Your task to perform on an android device: turn off priority inbox in the gmail app Image 0: 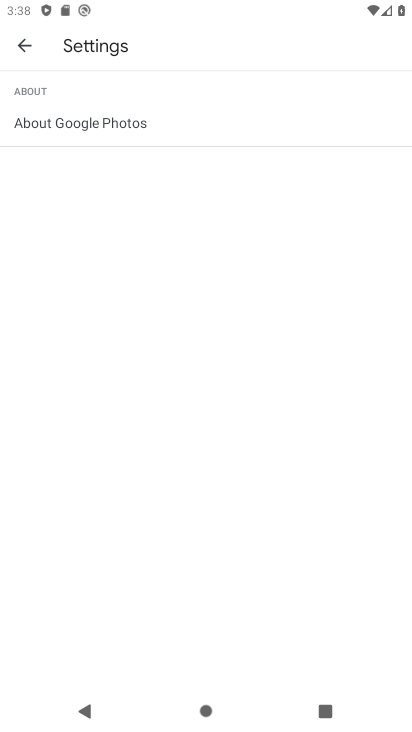
Step 0: press home button
Your task to perform on an android device: turn off priority inbox in the gmail app Image 1: 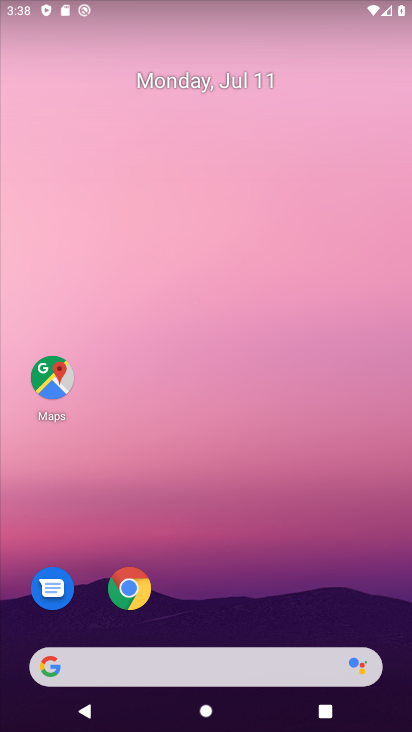
Step 1: drag from (345, 601) to (384, 131)
Your task to perform on an android device: turn off priority inbox in the gmail app Image 2: 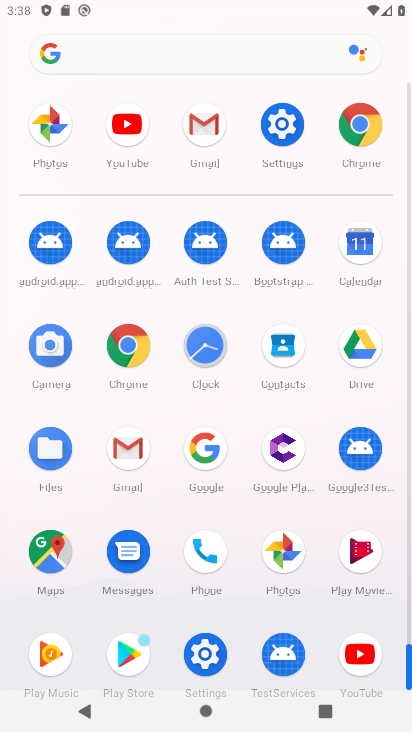
Step 2: click (132, 445)
Your task to perform on an android device: turn off priority inbox in the gmail app Image 3: 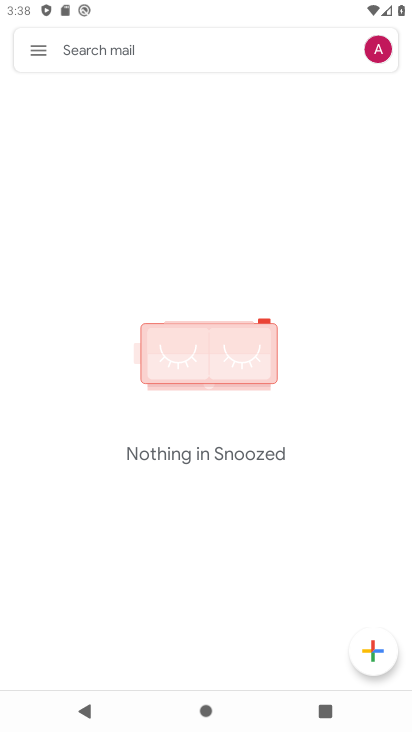
Step 3: click (36, 52)
Your task to perform on an android device: turn off priority inbox in the gmail app Image 4: 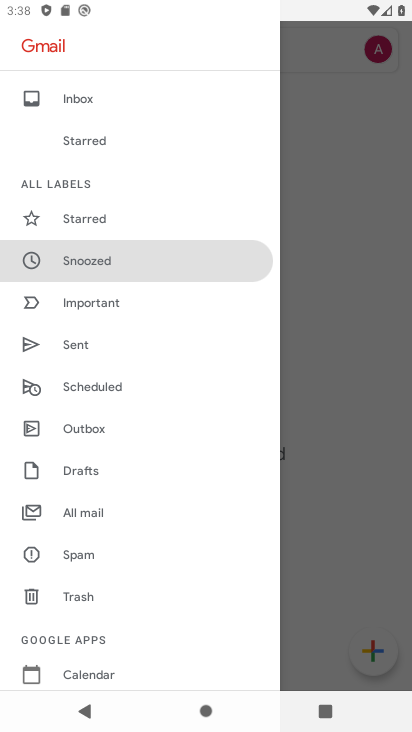
Step 4: drag from (228, 386) to (229, 277)
Your task to perform on an android device: turn off priority inbox in the gmail app Image 5: 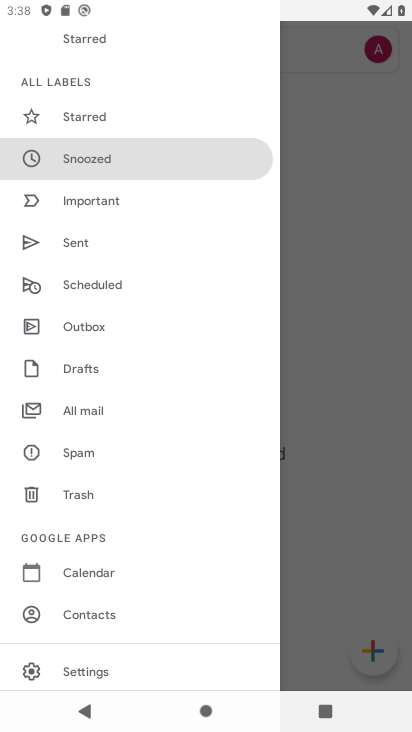
Step 5: drag from (230, 513) to (234, 392)
Your task to perform on an android device: turn off priority inbox in the gmail app Image 6: 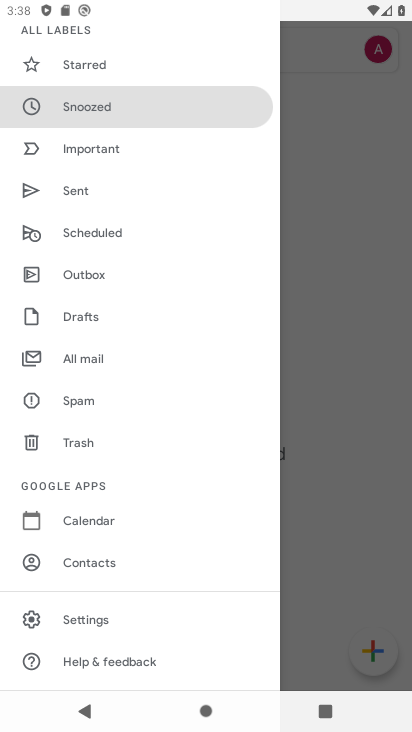
Step 6: click (160, 628)
Your task to perform on an android device: turn off priority inbox in the gmail app Image 7: 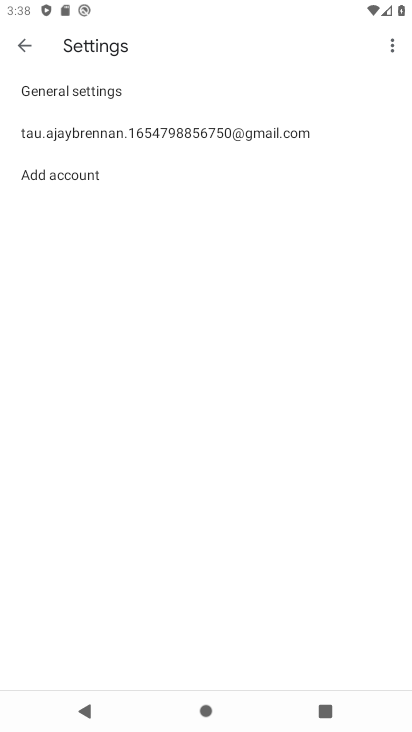
Step 7: click (142, 141)
Your task to perform on an android device: turn off priority inbox in the gmail app Image 8: 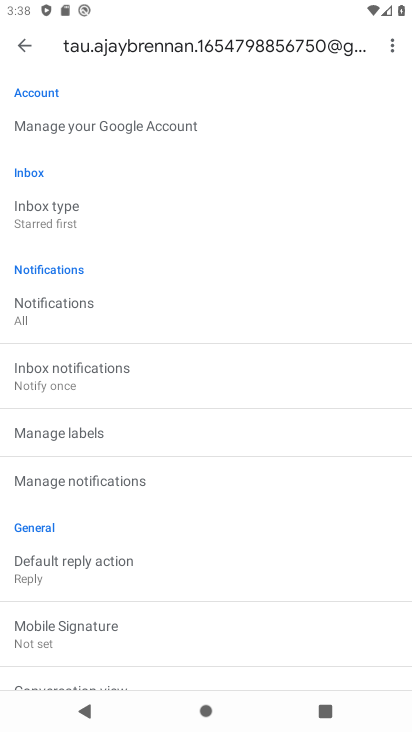
Step 8: drag from (248, 395) to (257, 340)
Your task to perform on an android device: turn off priority inbox in the gmail app Image 9: 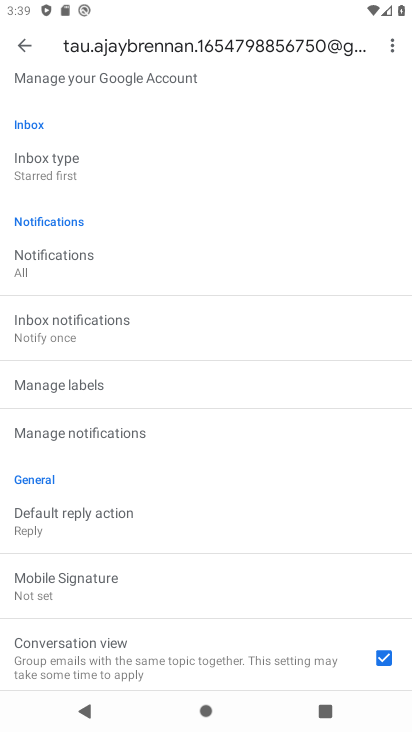
Step 9: drag from (280, 410) to (284, 308)
Your task to perform on an android device: turn off priority inbox in the gmail app Image 10: 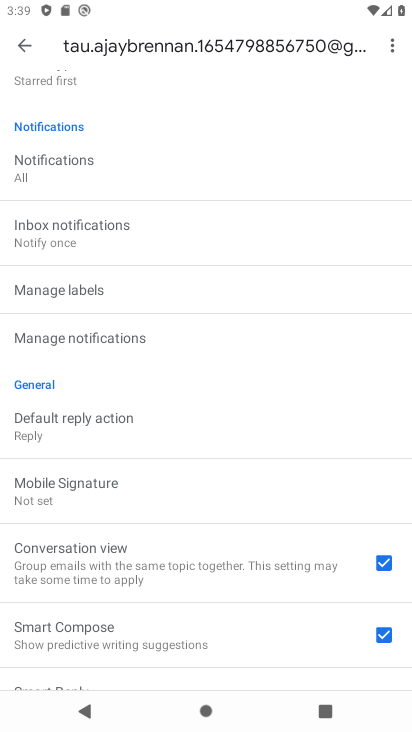
Step 10: drag from (275, 410) to (287, 317)
Your task to perform on an android device: turn off priority inbox in the gmail app Image 11: 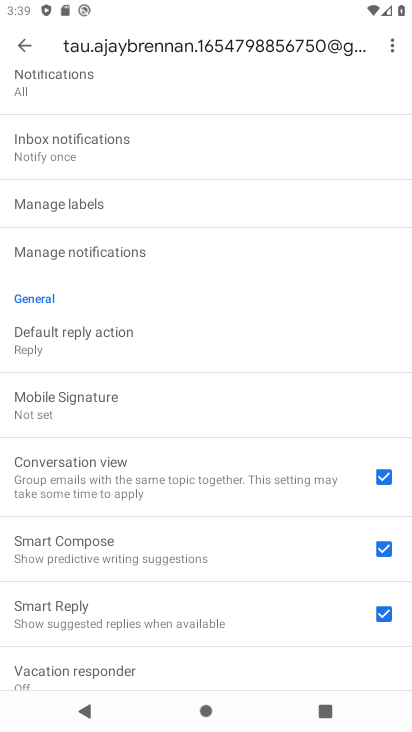
Step 11: drag from (281, 452) to (279, 338)
Your task to perform on an android device: turn off priority inbox in the gmail app Image 12: 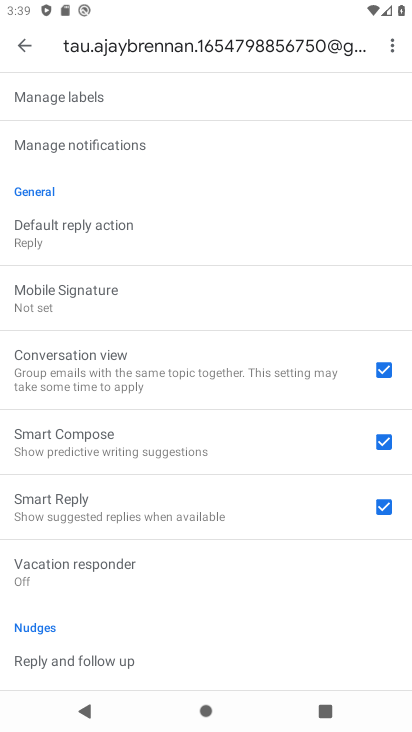
Step 12: drag from (298, 485) to (298, 343)
Your task to perform on an android device: turn off priority inbox in the gmail app Image 13: 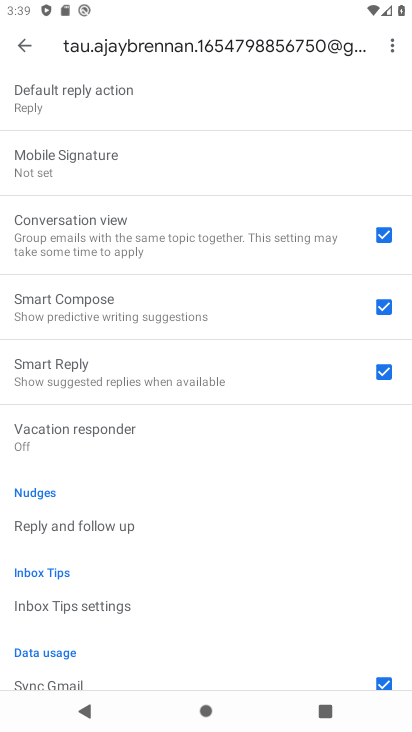
Step 13: drag from (291, 475) to (280, 275)
Your task to perform on an android device: turn off priority inbox in the gmail app Image 14: 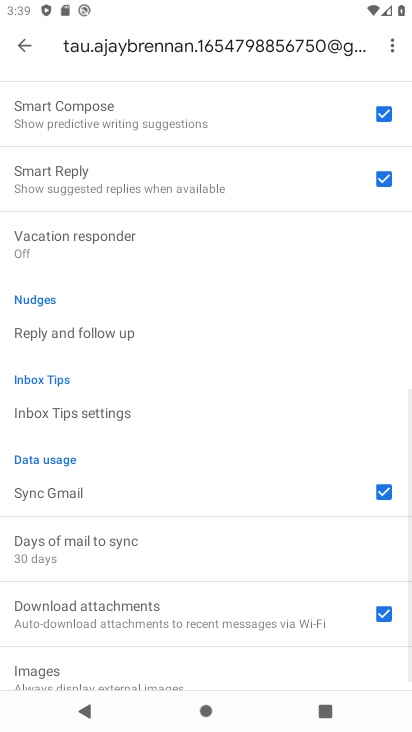
Step 14: drag from (279, 266) to (266, 397)
Your task to perform on an android device: turn off priority inbox in the gmail app Image 15: 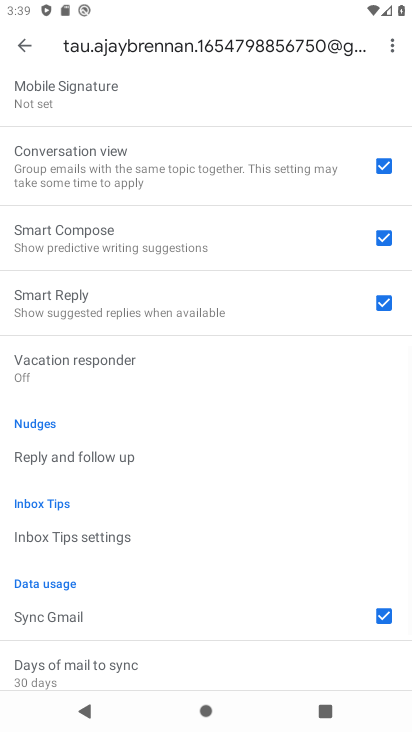
Step 15: drag from (260, 214) to (278, 374)
Your task to perform on an android device: turn off priority inbox in the gmail app Image 16: 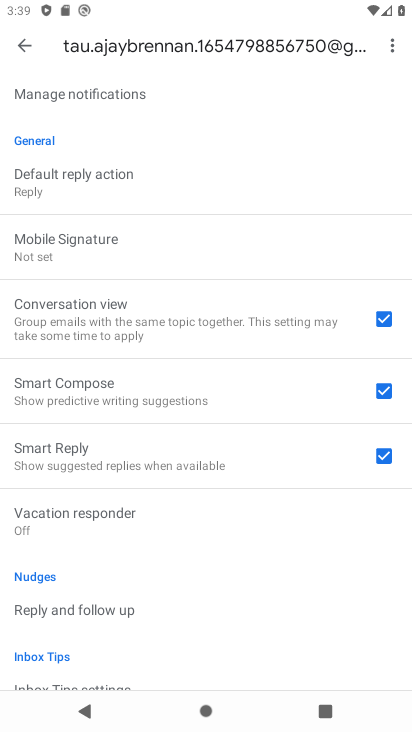
Step 16: drag from (283, 167) to (305, 370)
Your task to perform on an android device: turn off priority inbox in the gmail app Image 17: 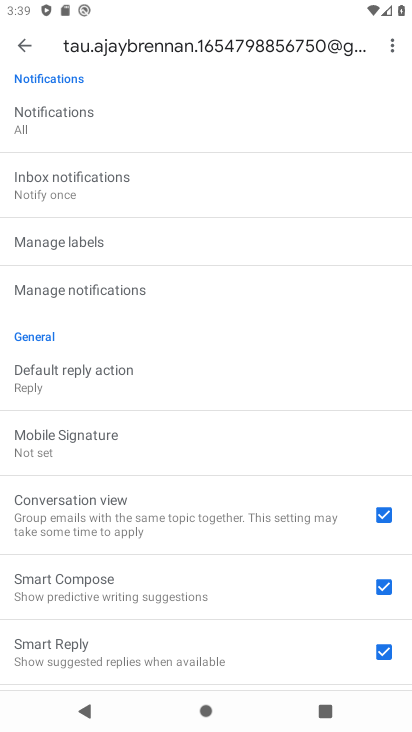
Step 17: drag from (262, 133) to (304, 341)
Your task to perform on an android device: turn off priority inbox in the gmail app Image 18: 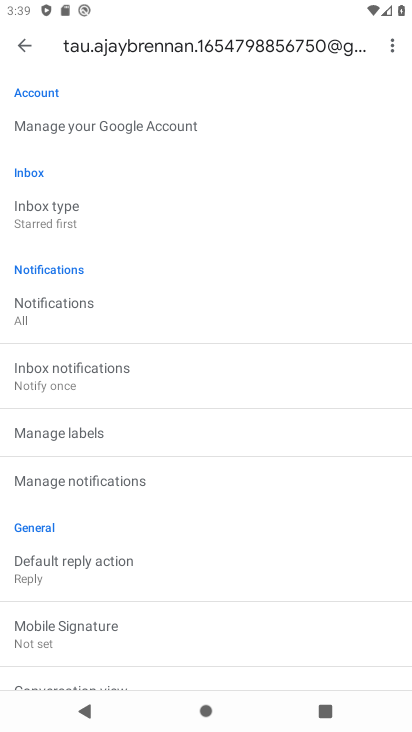
Step 18: click (56, 218)
Your task to perform on an android device: turn off priority inbox in the gmail app Image 19: 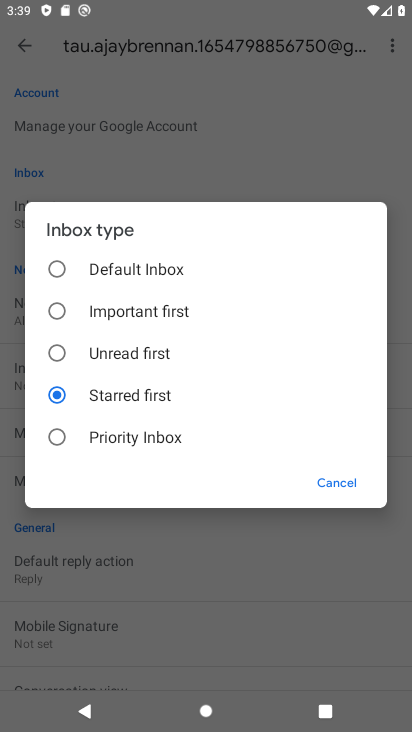
Step 19: task complete